Your task to perform on an android device: Open calendar and show me the third week of next month Image 0: 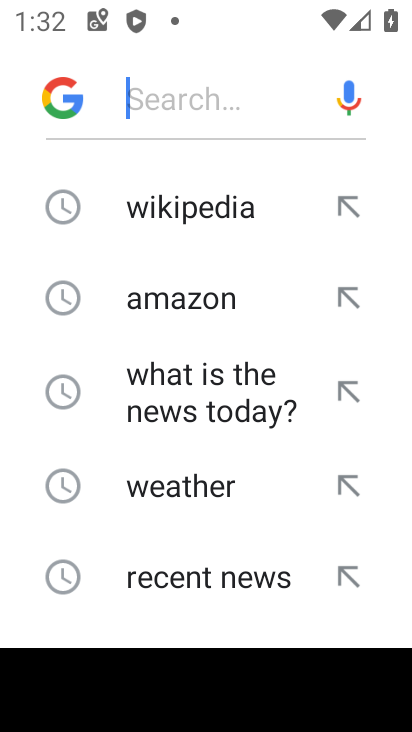
Step 0: press home button
Your task to perform on an android device: Open calendar and show me the third week of next month Image 1: 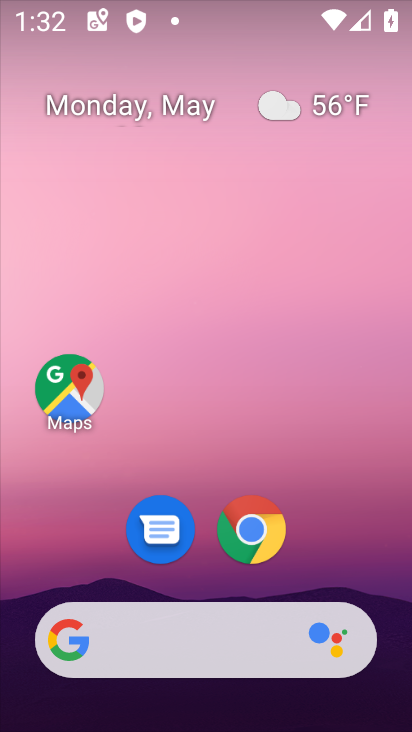
Step 1: drag from (214, 576) to (187, 33)
Your task to perform on an android device: Open calendar and show me the third week of next month Image 2: 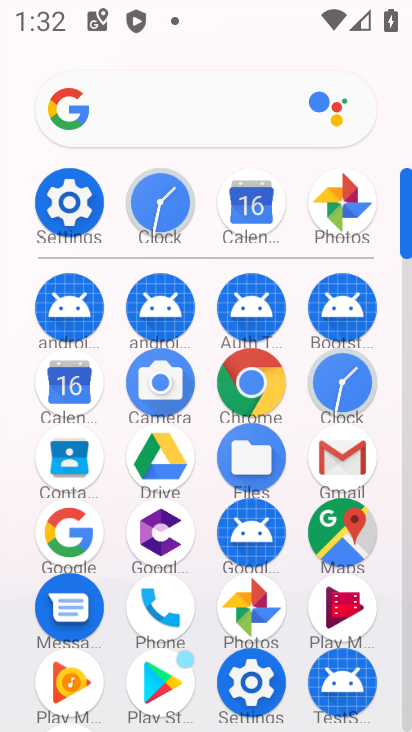
Step 2: click (66, 375)
Your task to perform on an android device: Open calendar and show me the third week of next month Image 3: 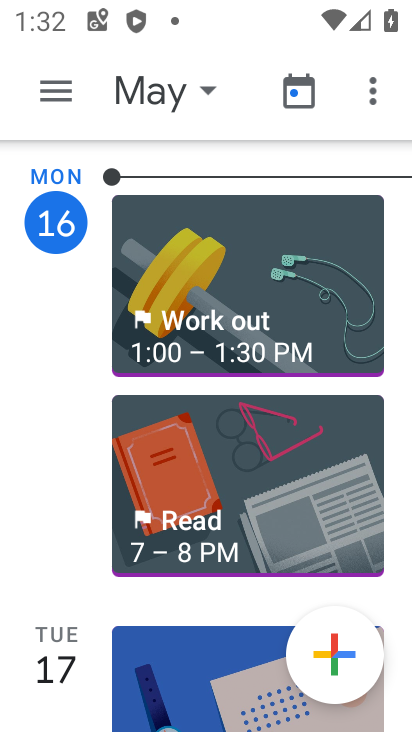
Step 3: click (139, 107)
Your task to perform on an android device: Open calendar and show me the third week of next month Image 4: 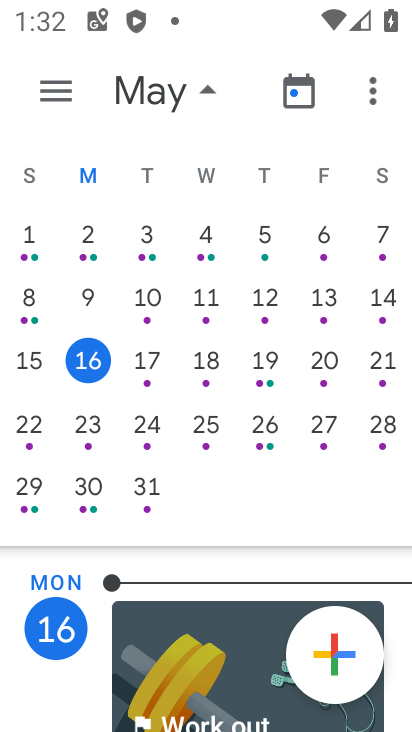
Step 4: drag from (362, 285) to (13, 309)
Your task to perform on an android device: Open calendar and show me the third week of next month Image 5: 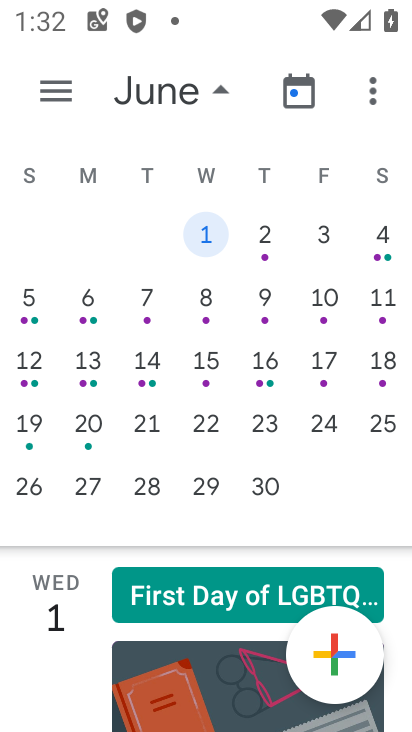
Step 5: click (29, 384)
Your task to perform on an android device: Open calendar and show me the third week of next month Image 6: 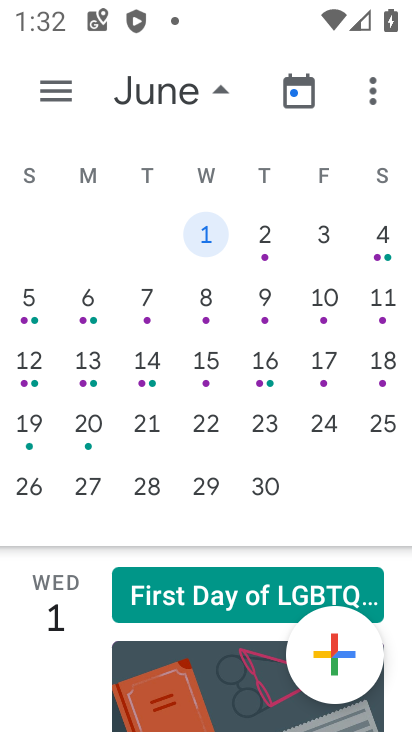
Step 6: click (43, 369)
Your task to perform on an android device: Open calendar and show me the third week of next month Image 7: 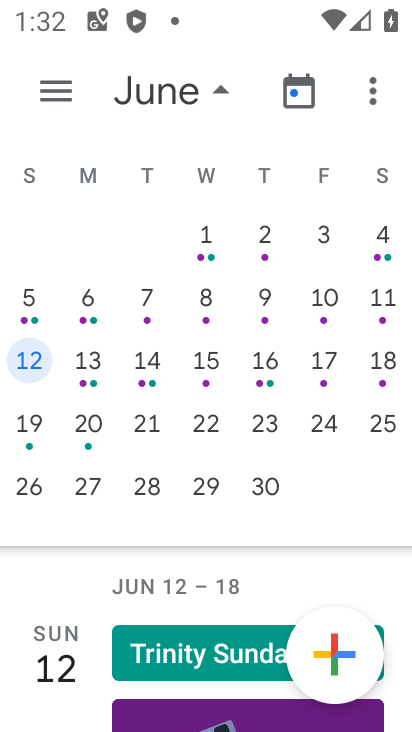
Step 7: task complete